Your task to perform on an android device: turn off priority inbox in the gmail app Image 0: 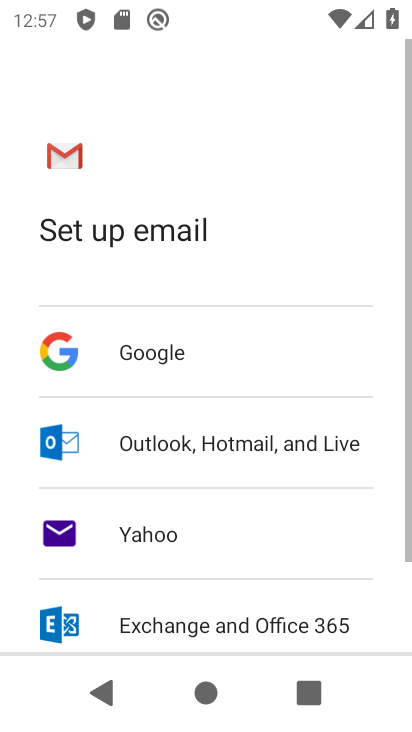
Step 0: press home button
Your task to perform on an android device: turn off priority inbox in the gmail app Image 1: 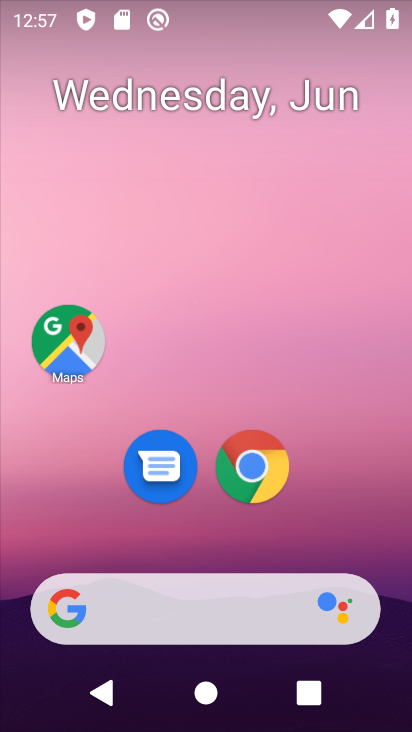
Step 1: drag from (43, 549) to (221, 84)
Your task to perform on an android device: turn off priority inbox in the gmail app Image 2: 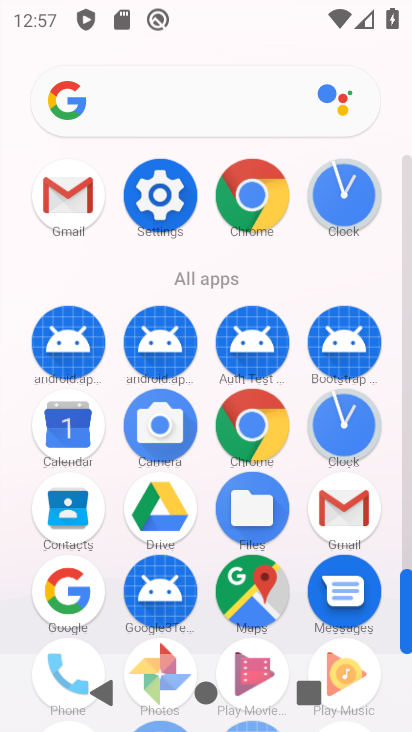
Step 2: drag from (164, 575) to (266, 314)
Your task to perform on an android device: turn off priority inbox in the gmail app Image 3: 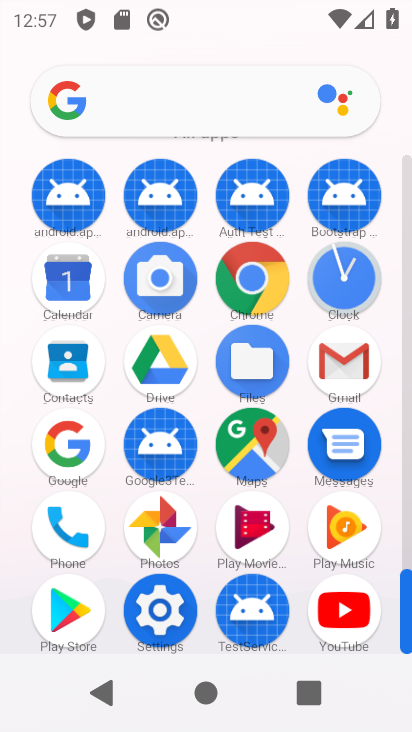
Step 3: click (340, 364)
Your task to perform on an android device: turn off priority inbox in the gmail app Image 4: 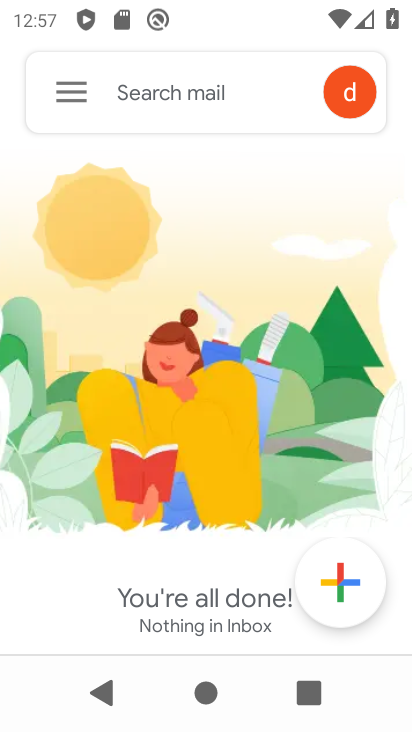
Step 4: click (71, 76)
Your task to perform on an android device: turn off priority inbox in the gmail app Image 5: 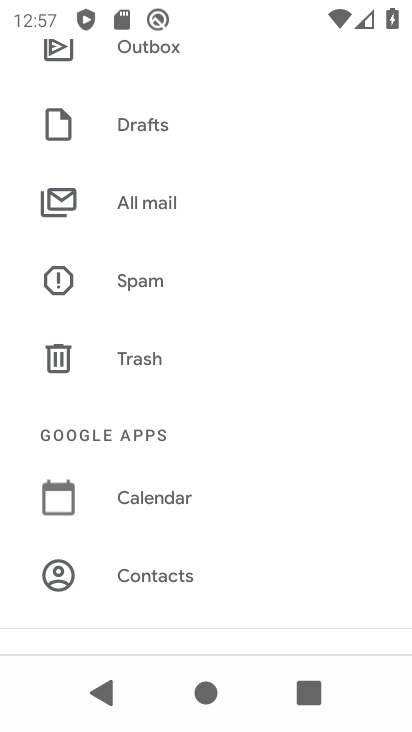
Step 5: drag from (91, 565) to (238, 147)
Your task to perform on an android device: turn off priority inbox in the gmail app Image 6: 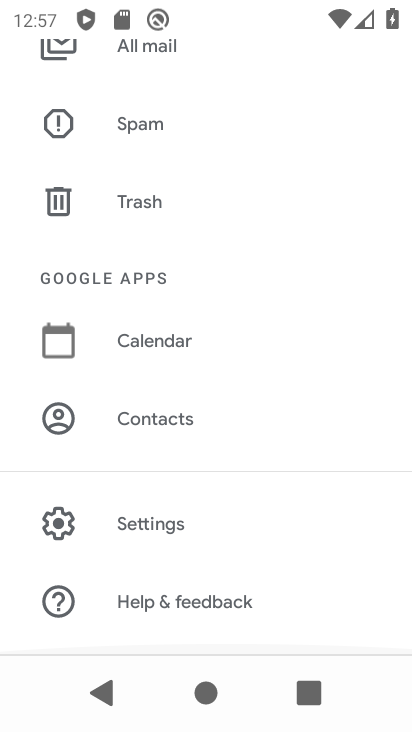
Step 6: click (156, 523)
Your task to perform on an android device: turn off priority inbox in the gmail app Image 7: 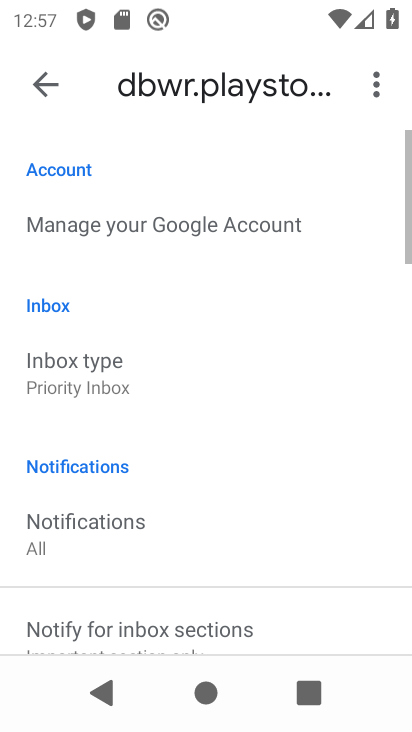
Step 7: drag from (207, 566) to (251, 342)
Your task to perform on an android device: turn off priority inbox in the gmail app Image 8: 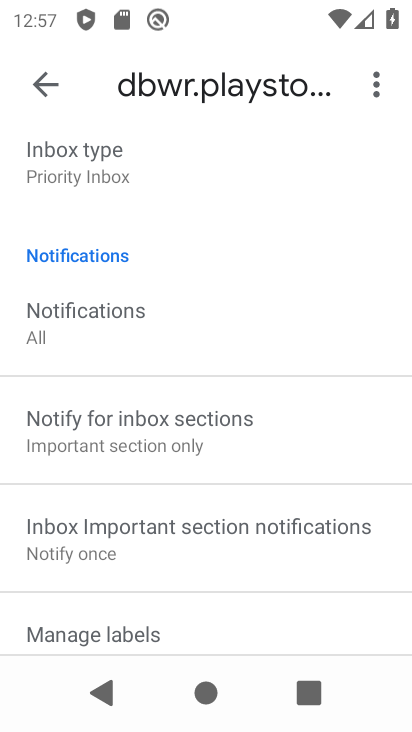
Step 8: click (133, 170)
Your task to perform on an android device: turn off priority inbox in the gmail app Image 9: 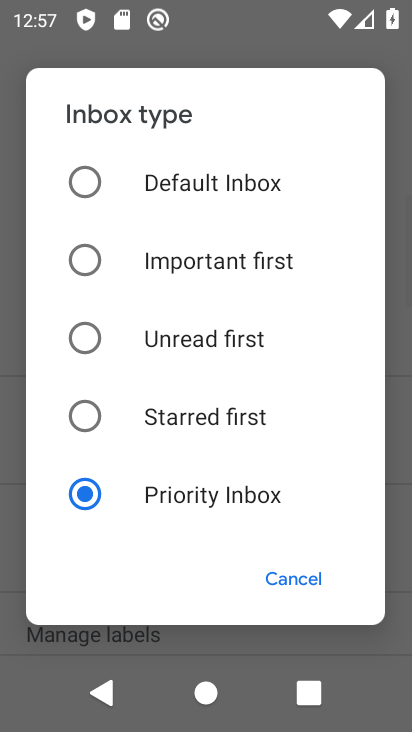
Step 9: click (247, 198)
Your task to perform on an android device: turn off priority inbox in the gmail app Image 10: 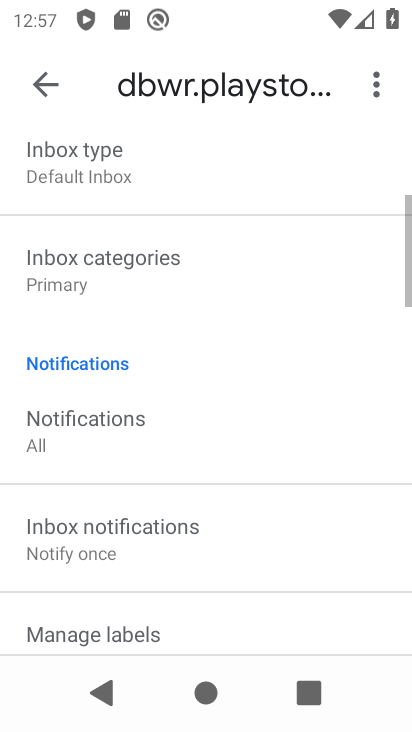
Step 10: task complete